Your task to perform on an android device: Open settings on Google Maps Image 0: 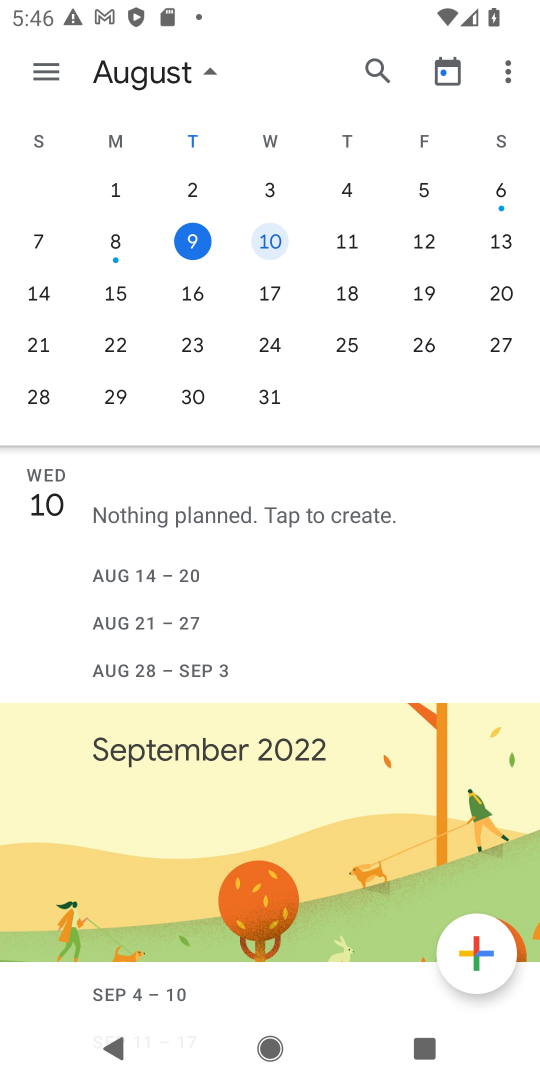
Step 0: press home button
Your task to perform on an android device: Open settings on Google Maps Image 1: 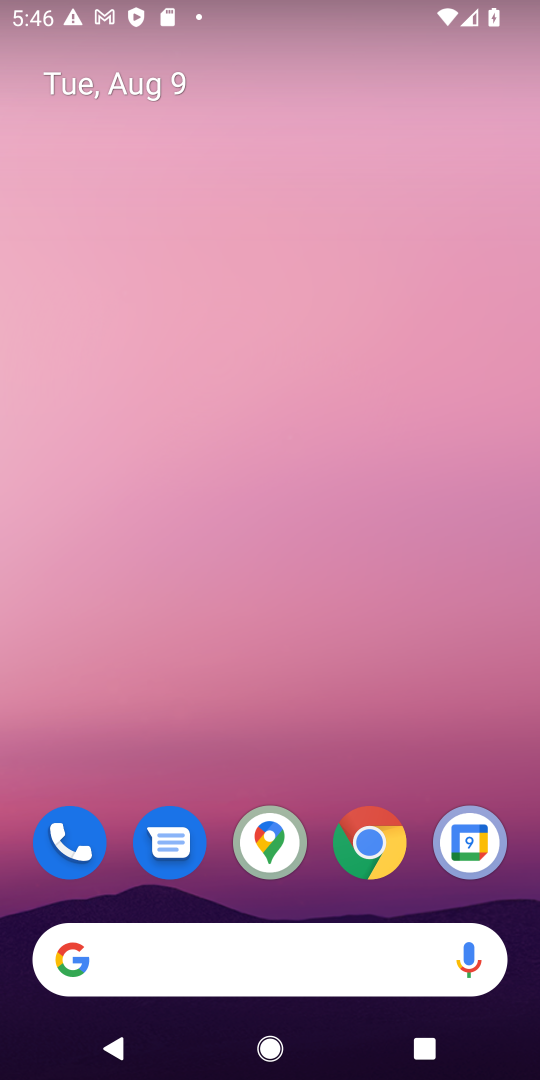
Step 1: drag from (170, 816) to (248, 323)
Your task to perform on an android device: Open settings on Google Maps Image 2: 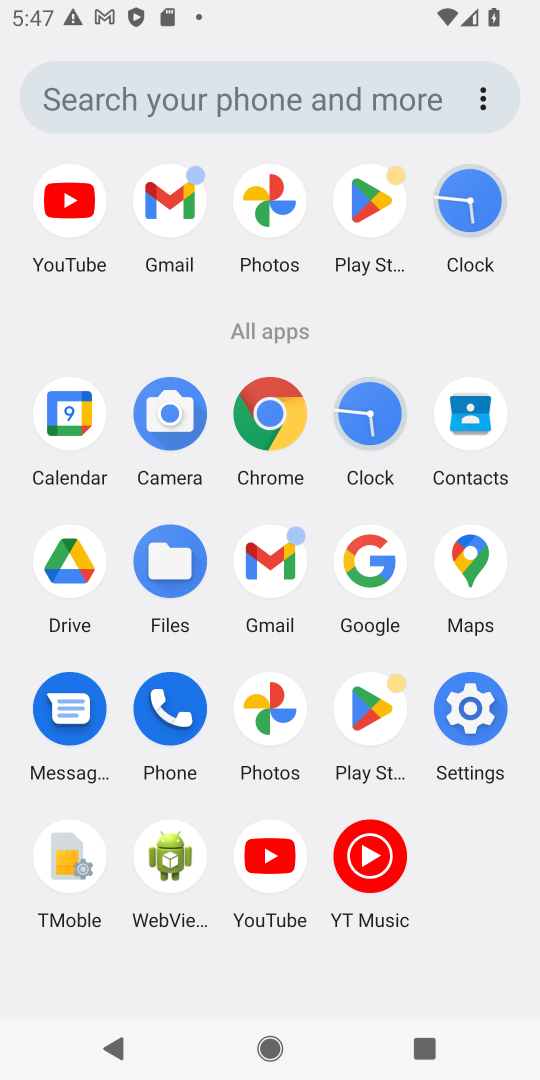
Step 2: click (453, 570)
Your task to perform on an android device: Open settings on Google Maps Image 3: 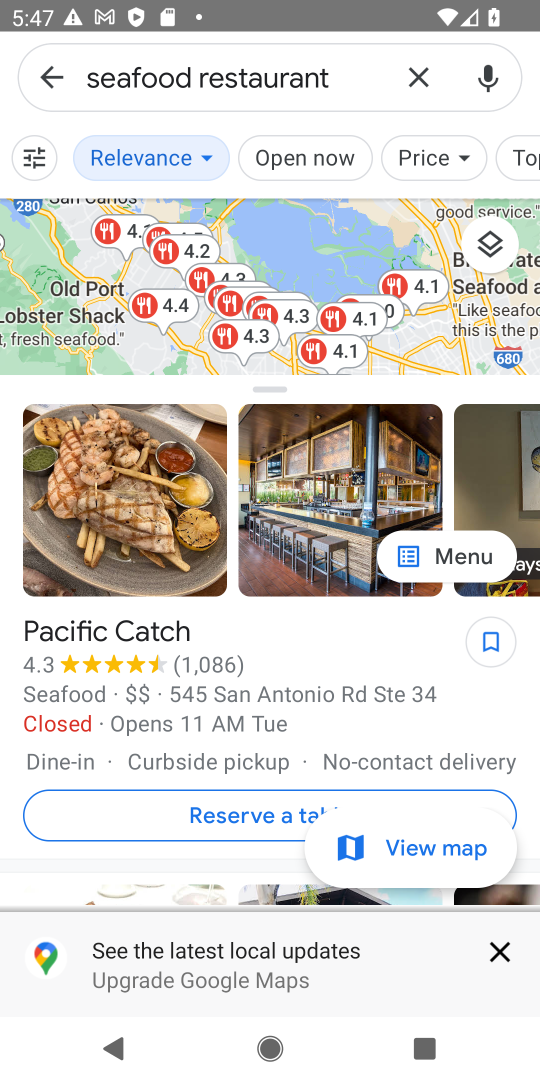
Step 3: click (45, 74)
Your task to perform on an android device: Open settings on Google Maps Image 4: 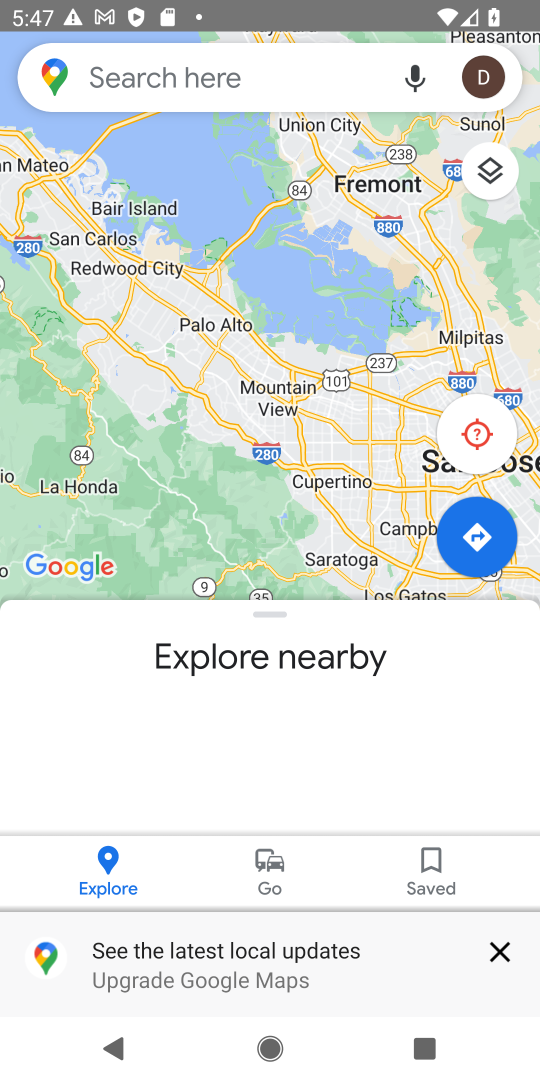
Step 4: click (477, 71)
Your task to perform on an android device: Open settings on Google Maps Image 5: 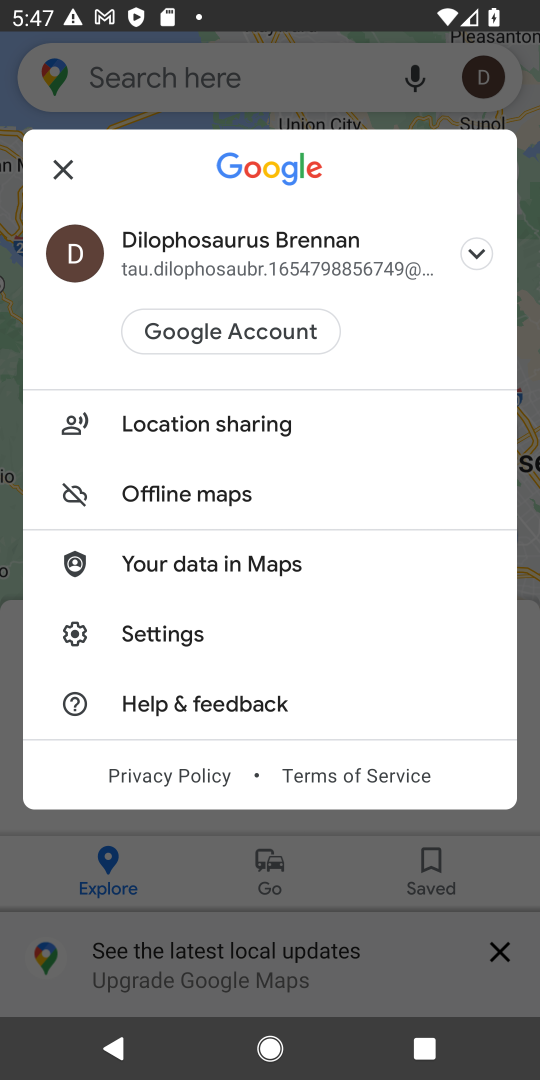
Step 5: click (178, 629)
Your task to perform on an android device: Open settings on Google Maps Image 6: 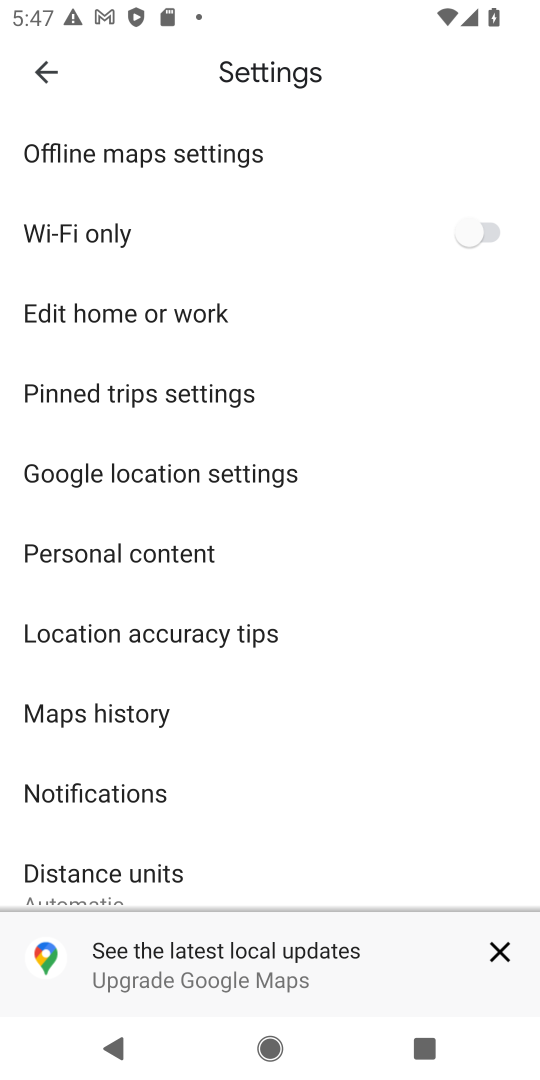
Step 6: task complete